Your task to perform on an android device: When is my next meeting? Image 0: 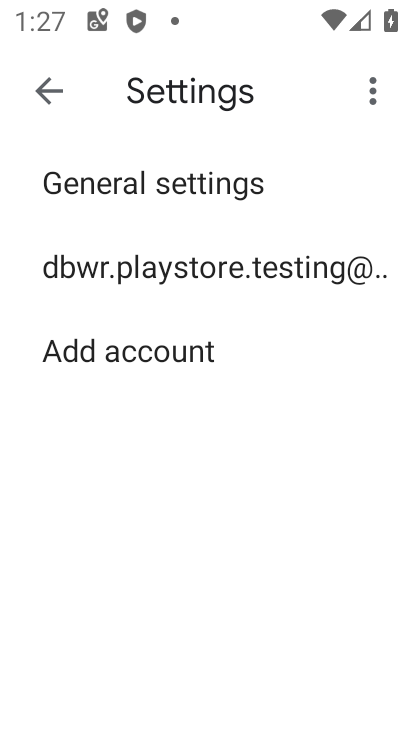
Step 0: press home button
Your task to perform on an android device: When is my next meeting? Image 1: 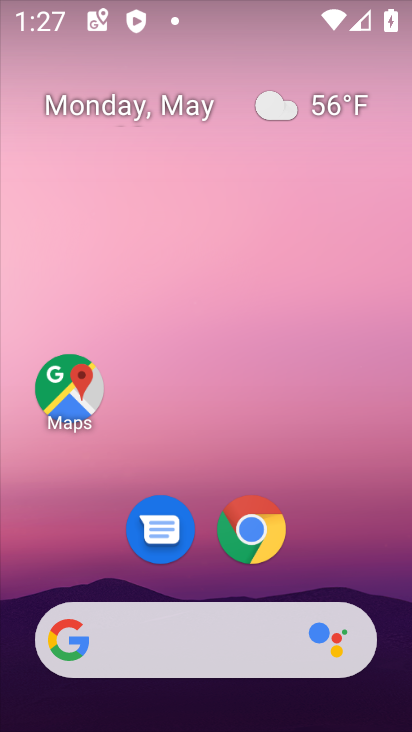
Step 1: drag from (215, 576) to (226, 46)
Your task to perform on an android device: When is my next meeting? Image 2: 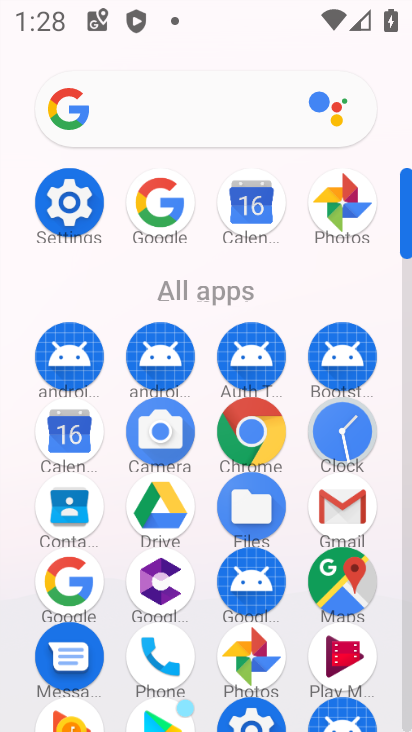
Step 2: click (71, 448)
Your task to perform on an android device: When is my next meeting? Image 3: 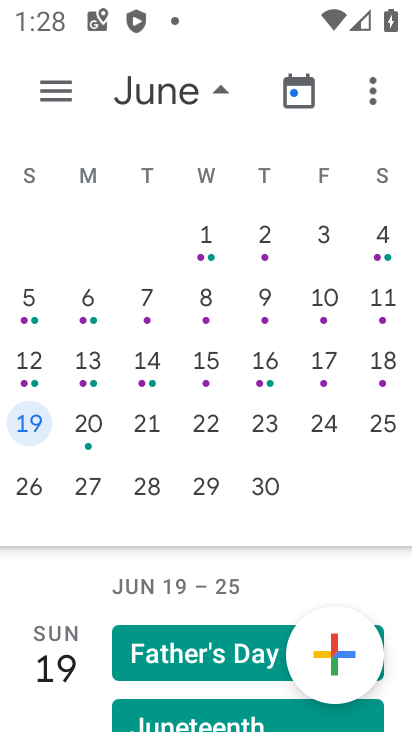
Step 3: drag from (45, 341) to (378, 343)
Your task to perform on an android device: When is my next meeting? Image 4: 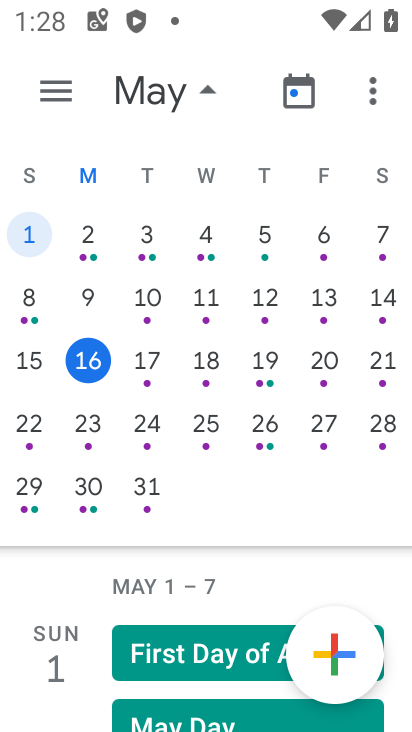
Step 4: click (91, 358)
Your task to perform on an android device: When is my next meeting? Image 5: 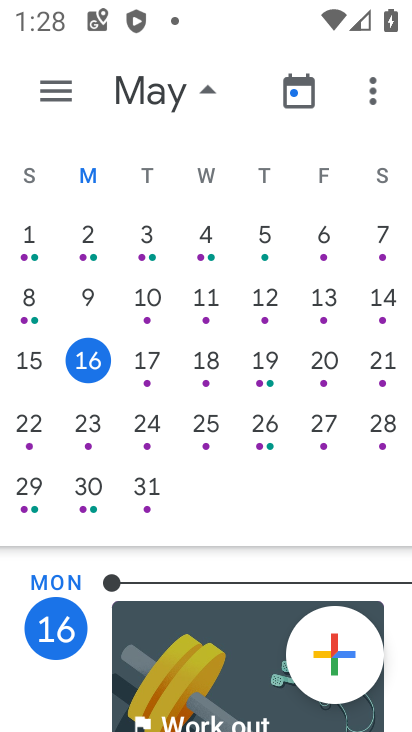
Step 5: task complete